Your task to perform on an android device: Go to battery settings Image 0: 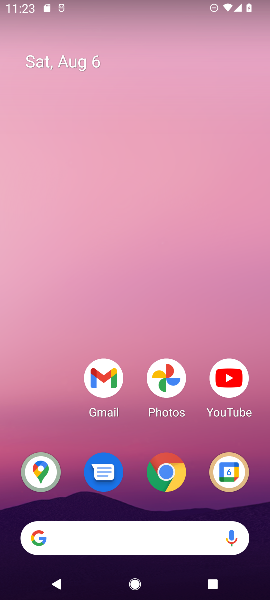
Step 0: drag from (140, 580) to (73, 112)
Your task to perform on an android device: Go to battery settings Image 1: 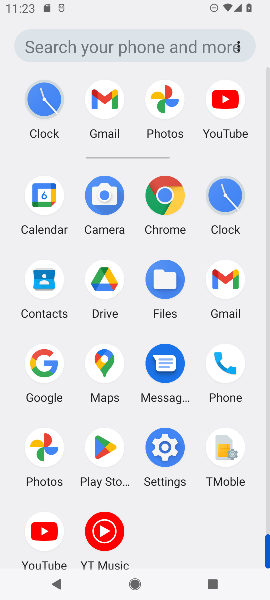
Step 1: click (167, 458)
Your task to perform on an android device: Go to battery settings Image 2: 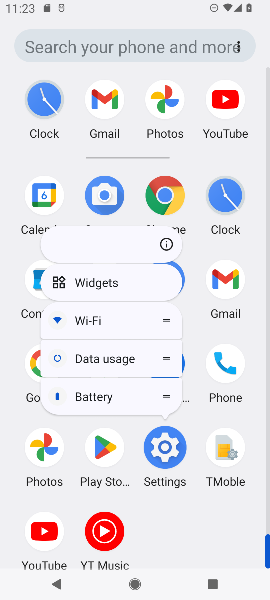
Step 2: click (165, 446)
Your task to perform on an android device: Go to battery settings Image 3: 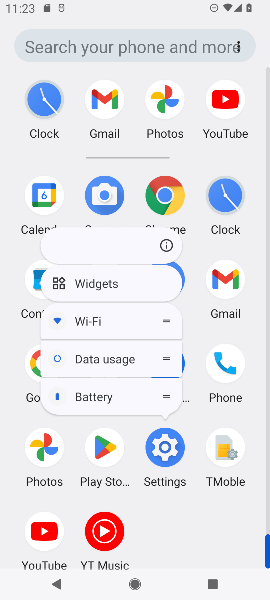
Step 3: click (165, 446)
Your task to perform on an android device: Go to battery settings Image 4: 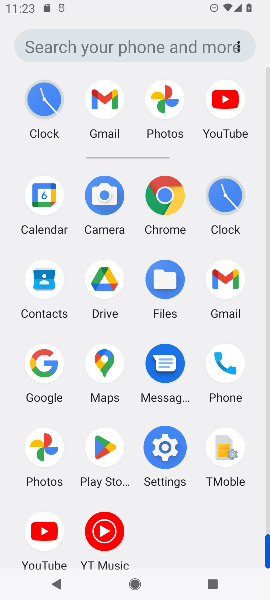
Step 4: click (166, 446)
Your task to perform on an android device: Go to battery settings Image 5: 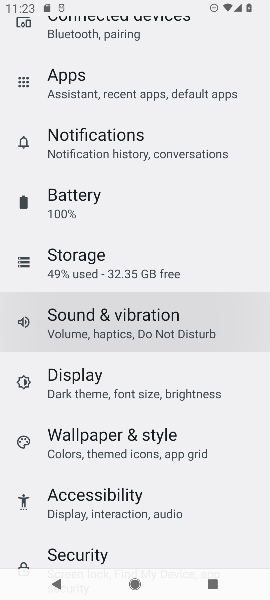
Step 5: click (166, 447)
Your task to perform on an android device: Go to battery settings Image 6: 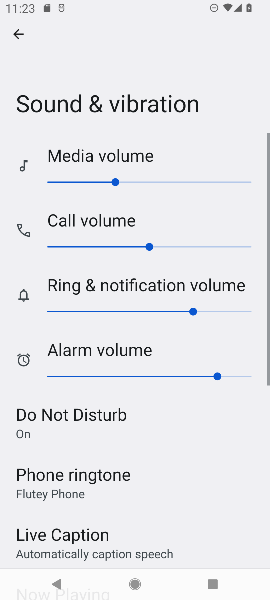
Step 6: click (17, 31)
Your task to perform on an android device: Go to battery settings Image 7: 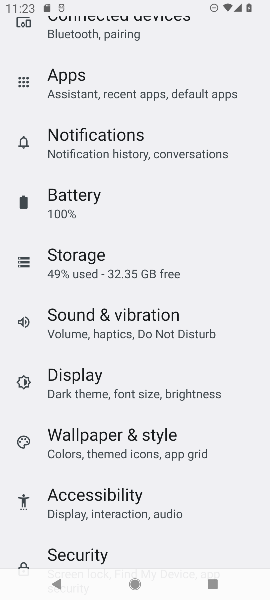
Step 7: click (60, 202)
Your task to perform on an android device: Go to battery settings Image 8: 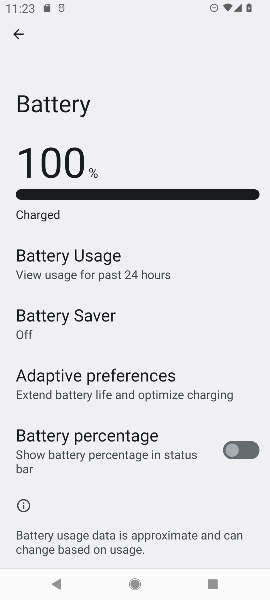
Step 8: task complete